Your task to perform on an android device: Show me the alarms in the clock app Image 0: 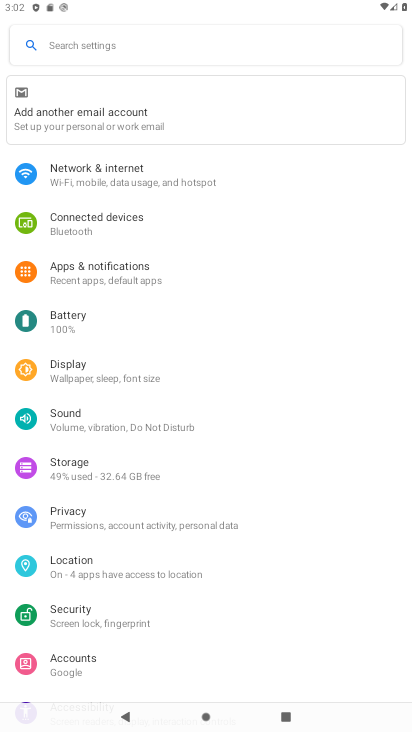
Step 0: press home button
Your task to perform on an android device: Show me the alarms in the clock app Image 1: 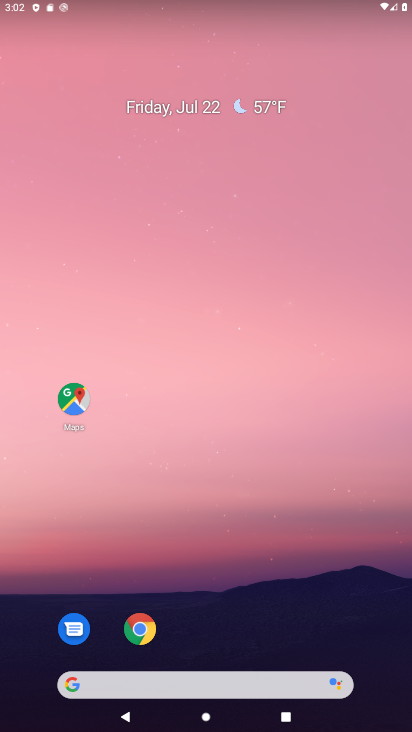
Step 1: drag from (258, 640) to (228, 123)
Your task to perform on an android device: Show me the alarms in the clock app Image 2: 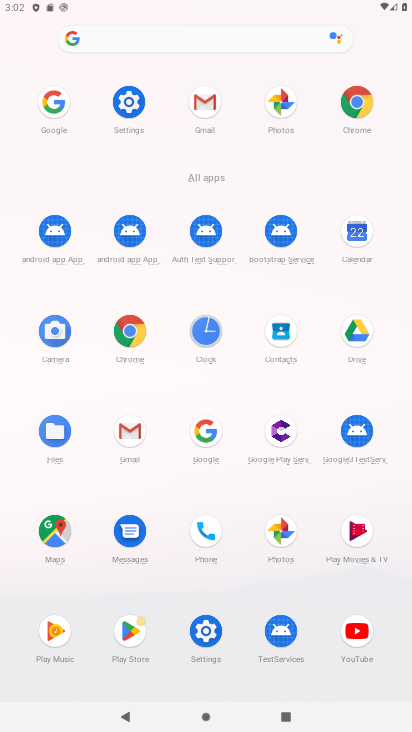
Step 2: click (211, 337)
Your task to perform on an android device: Show me the alarms in the clock app Image 3: 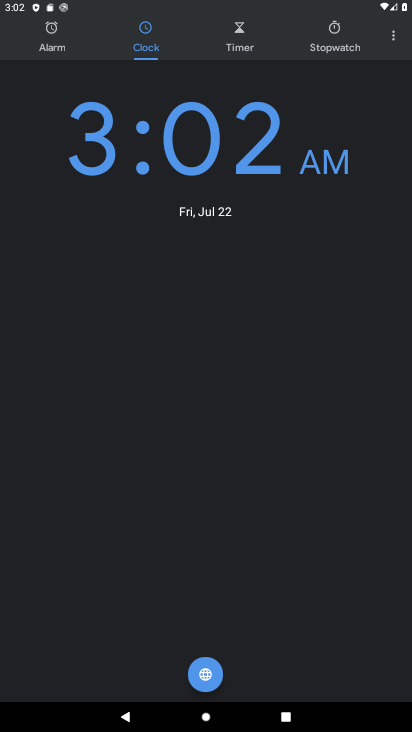
Step 3: click (68, 34)
Your task to perform on an android device: Show me the alarms in the clock app Image 4: 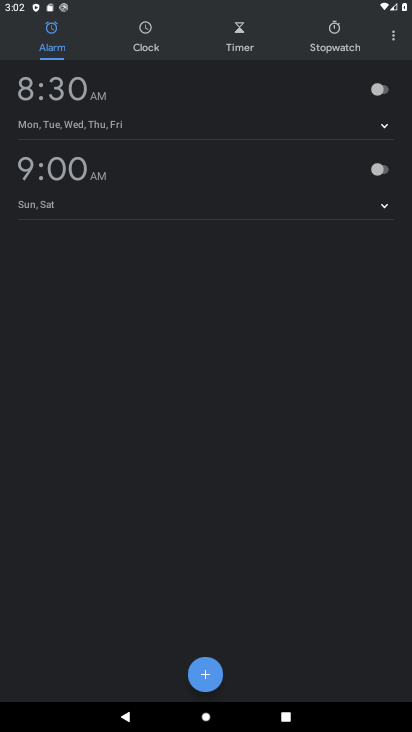
Step 4: task complete